Your task to perform on an android device: turn off javascript in the chrome app Image 0: 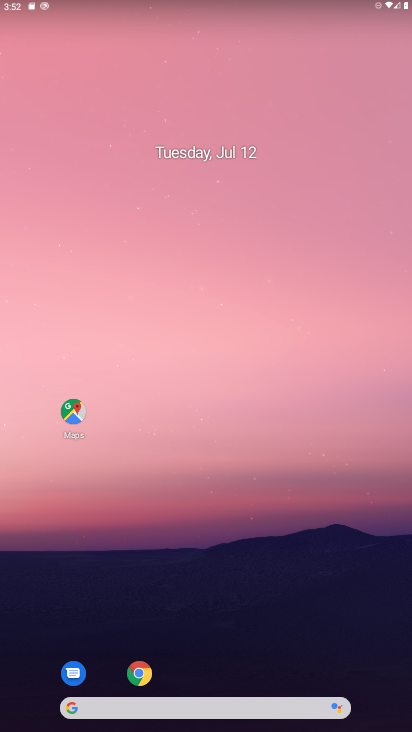
Step 0: click (139, 675)
Your task to perform on an android device: turn off javascript in the chrome app Image 1: 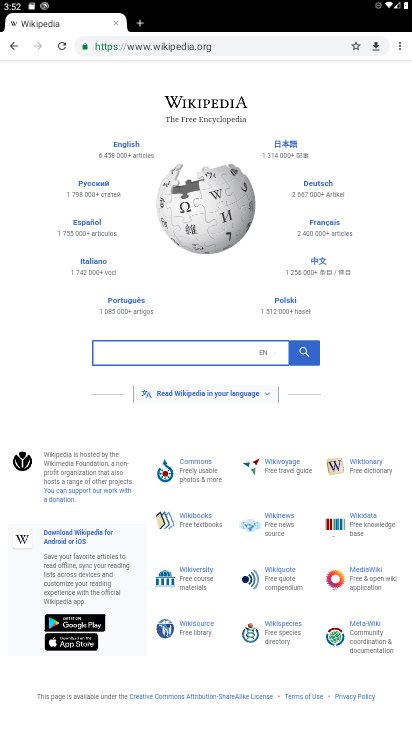
Step 1: click (400, 45)
Your task to perform on an android device: turn off javascript in the chrome app Image 2: 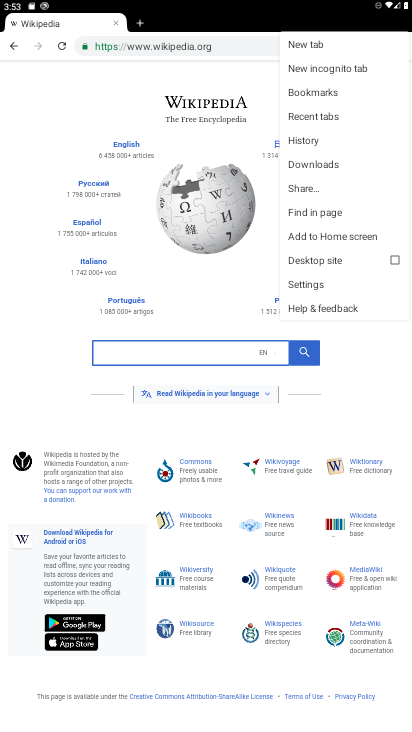
Step 2: click (311, 283)
Your task to perform on an android device: turn off javascript in the chrome app Image 3: 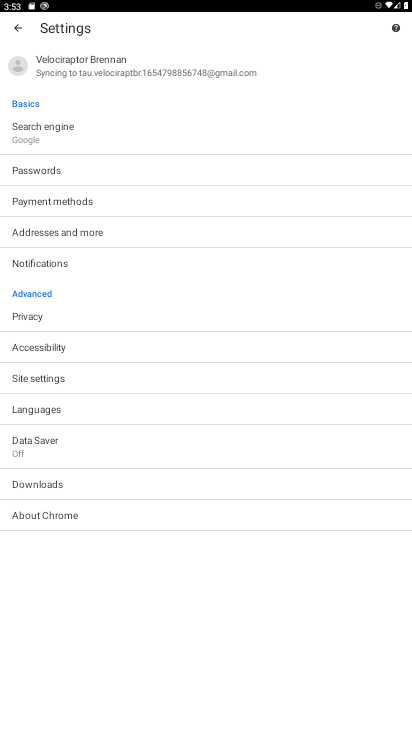
Step 3: click (62, 453)
Your task to perform on an android device: turn off javascript in the chrome app Image 4: 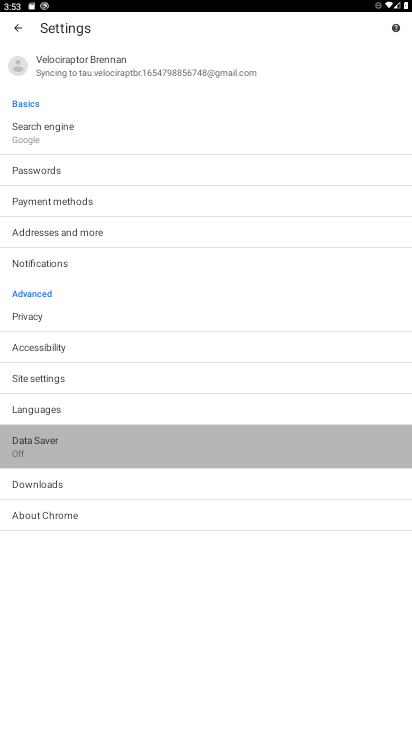
Step 4: click (62, 453)
Your task to perform on an android device: turn off javascript in the chrome app Image 5: 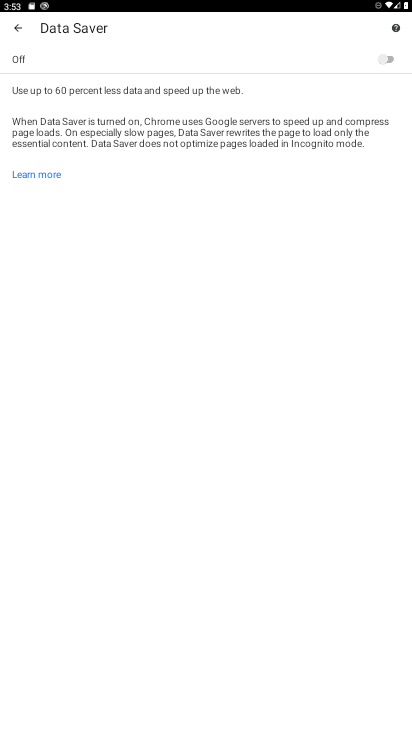
Step 5: task complete